Your task to perform on an android device: change alarm snooze length Image 0: 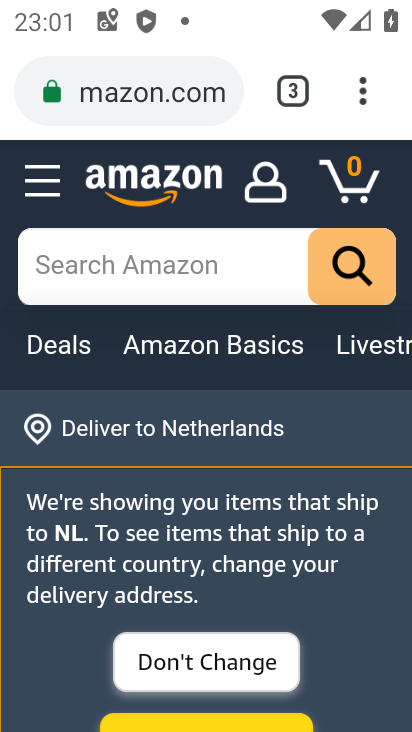
Step 0: press home button
Your task to perform on an android device: change alarm snooze length Image 1: 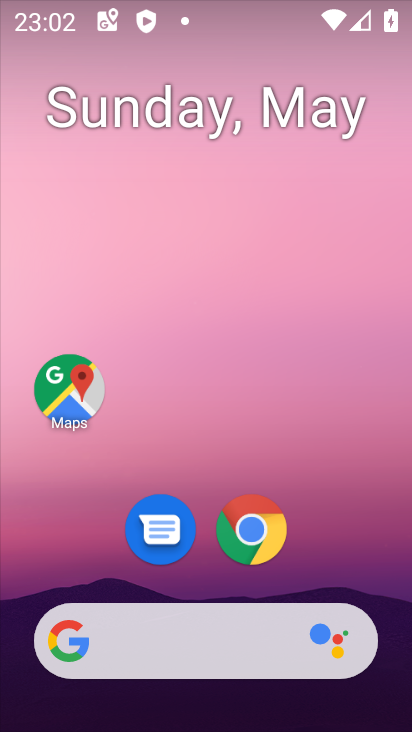
Step 1: drag from (389, 552) to (309, 108)
Your task to perform on an android device: change alarm snooze length Image 2: 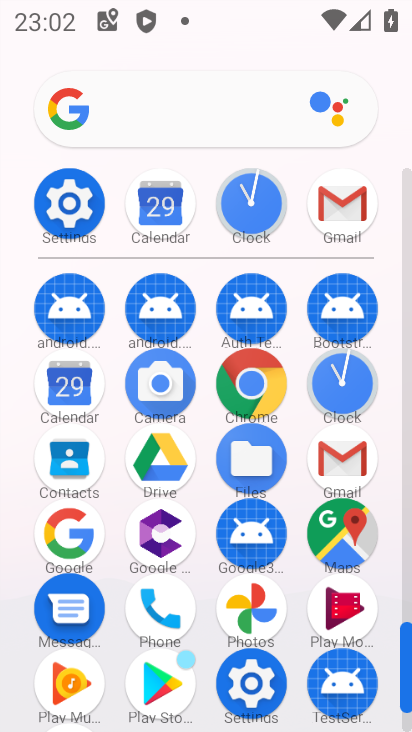
Step 2: click (255, 227)
Your task to perform on an android device: change alarm snooze length Image 3: 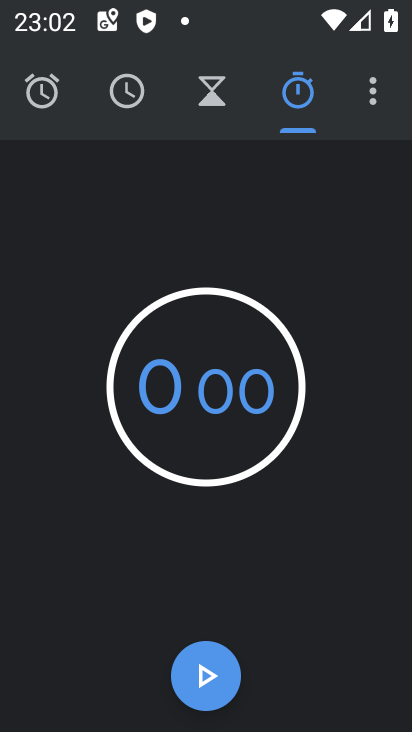
Step 3: click (385, 94)
Your task to perform on an android device: change alarm snooze length Image 4: 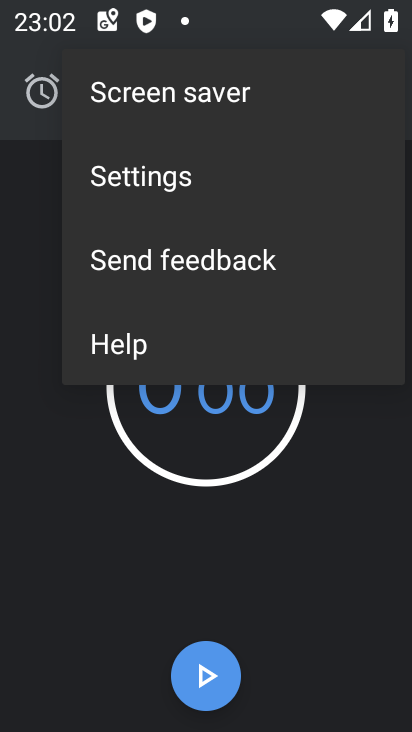
Step 4: click (218, 163)
Your task to perform on an android device: change alarm snooze length Image 5: 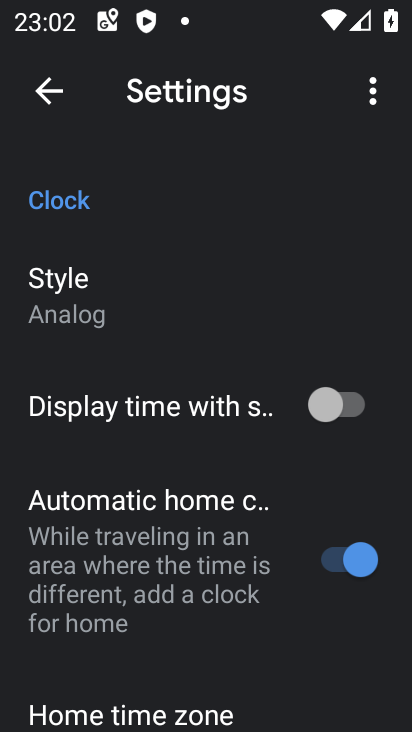
Step 5: drag from (201, 542) to (189, 360)
Your task to perform on an android device: change alarm snooze length Image 6: 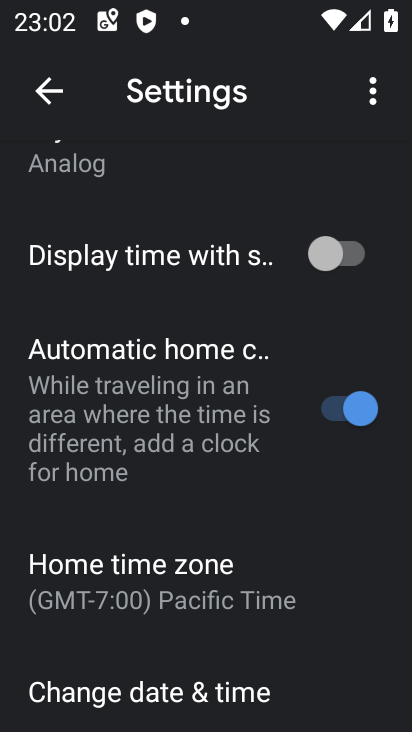
Step 6: drag from (202, 658) to (186, 298)
Your task to perform on an android device: change alarm snooze length Image 7: 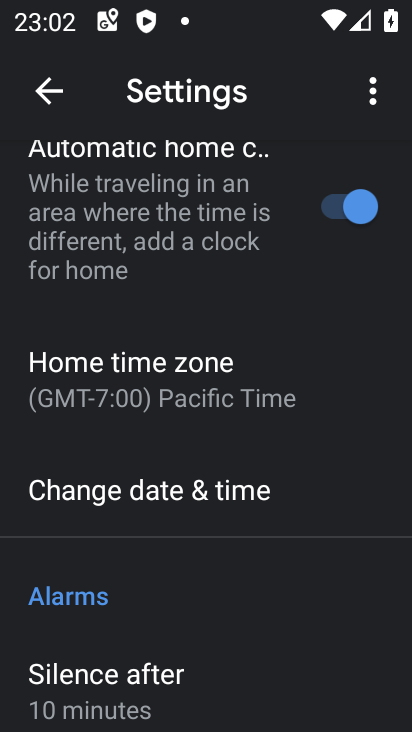
Step 7: drag from (256, 628) to (250, 505)
Your task to perform on an android device: change alarm snooze length Image 8: 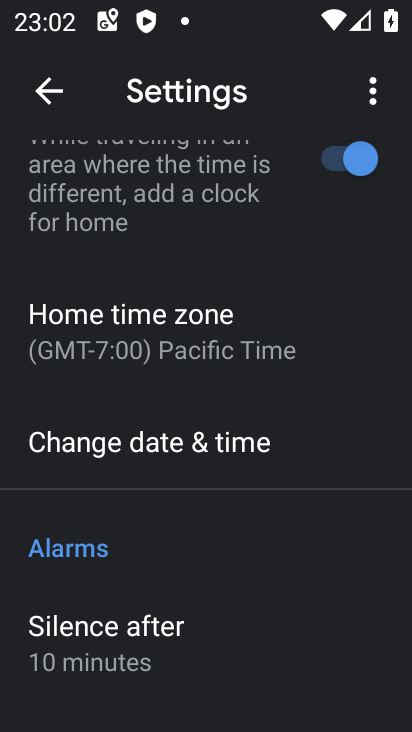
Step 8: drag from (232, 676) to (231, 622)
Your task to perform on an android device: change alarm snooze length Image 9: 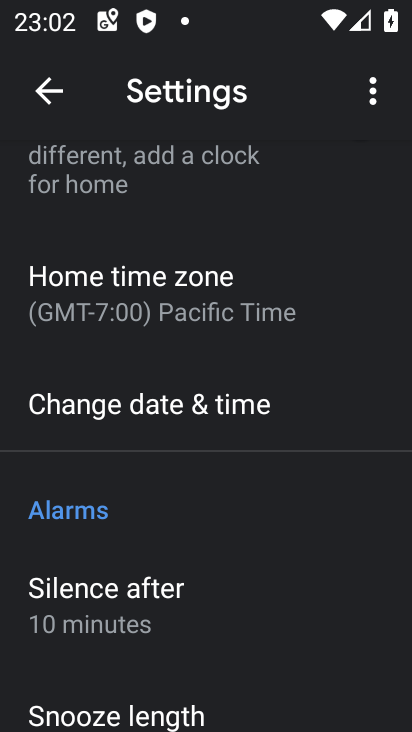
Step 9: click (249, 724)
Your task to perform on an android device: change alarm snooze length Image 10: 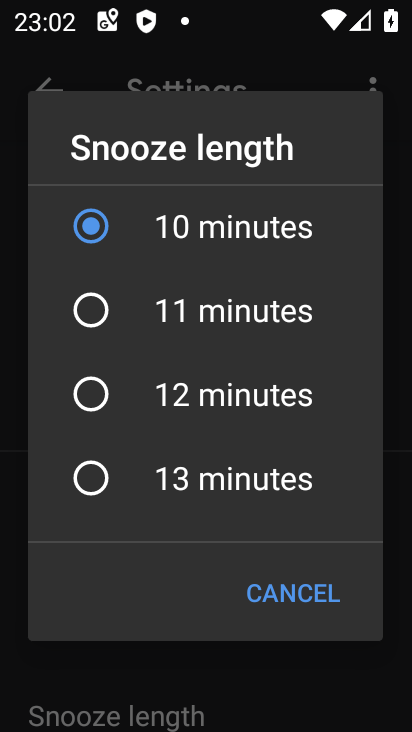
Step 10: click (305, 295)
Your task to perform on an android device: change alarm snooze length Image 11: 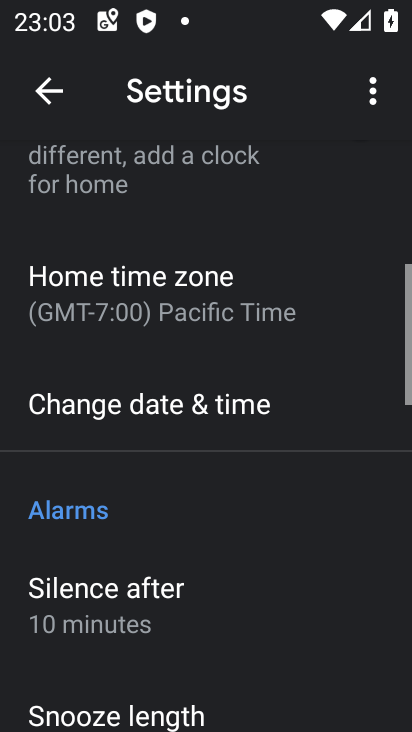
Step 11: task complete